Your task to perform on an android device: change notification settings in the gmail app Image 0: 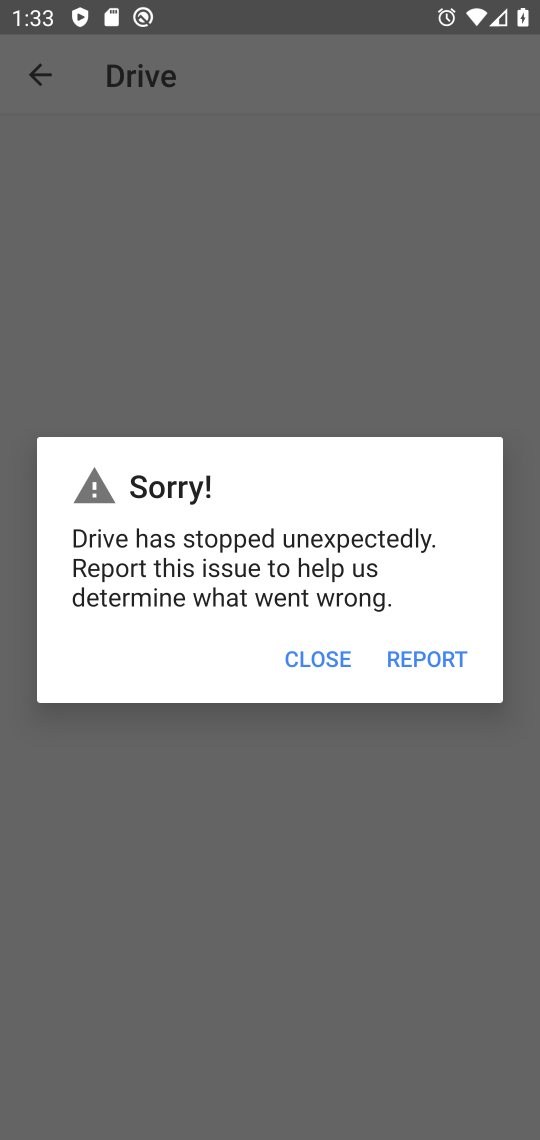
Step 0: drag from (257, 550) to (306, 433)
Your task to perform on an android device: change notification settings in the gmail app Image 1: 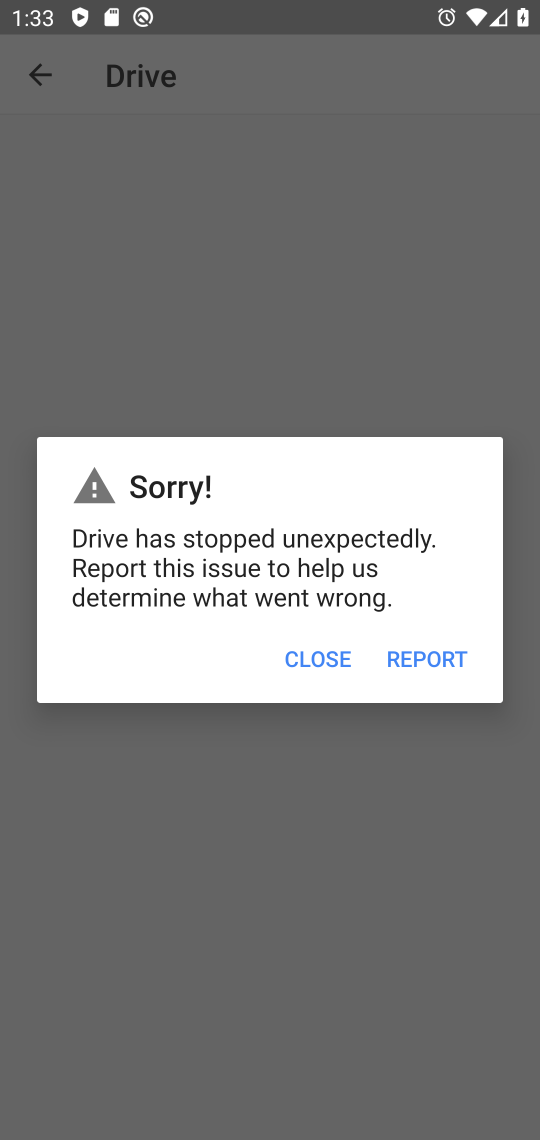
Step 1: press home button
Your task to perform on an android device: change notification settings in the gmail app Image 2: 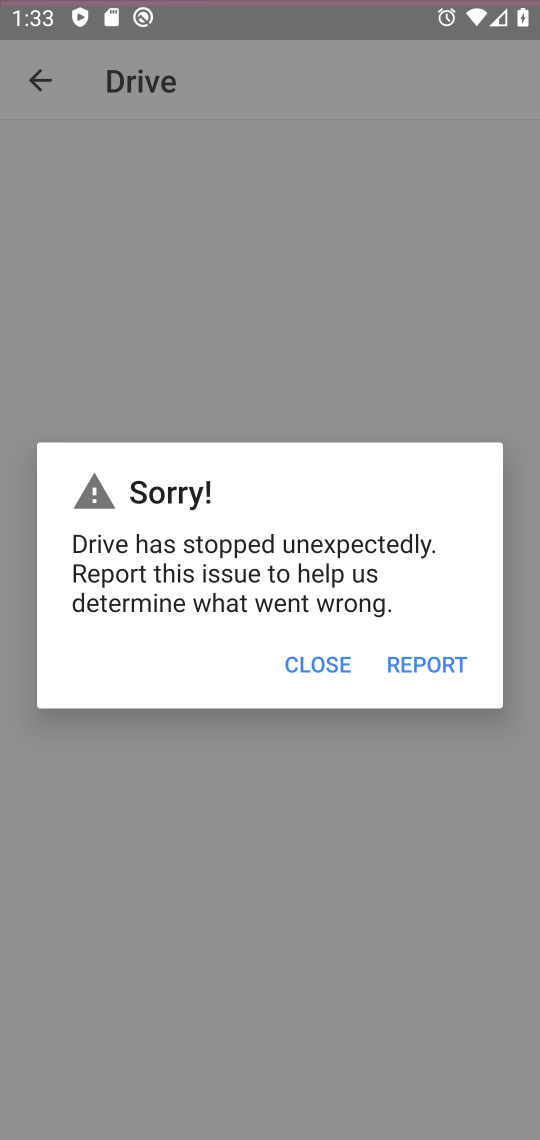
Step 2: drag from (297, 702) to (297, 543)
Your task to perform on an android device: change notification settings in the gmail app Image 3: 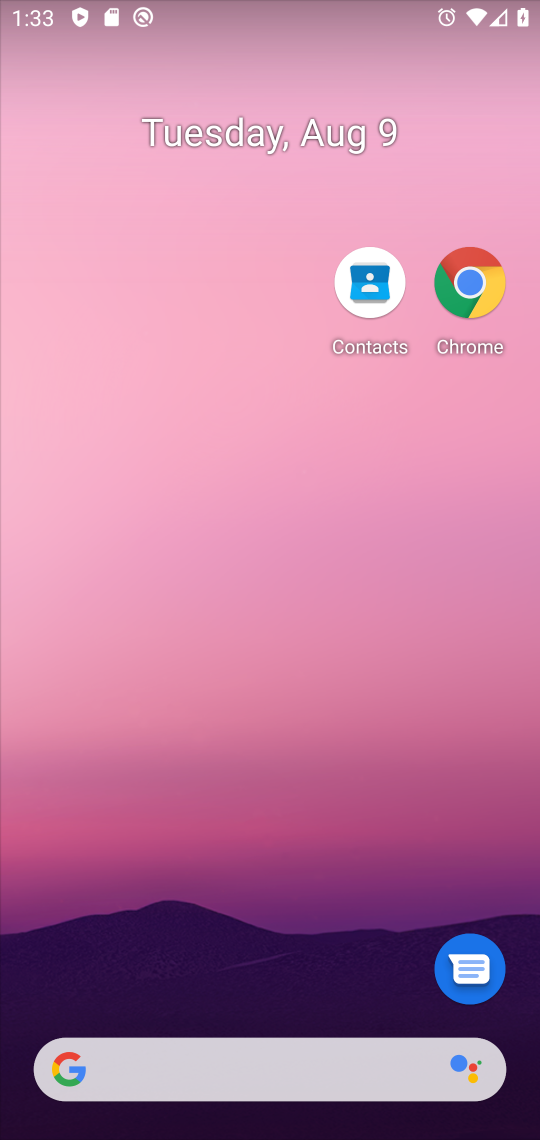
Step 3: drag from (292, 826) to (307, 406)
Your task to perform on an android device: change notification settings in the gmail app Image 4: 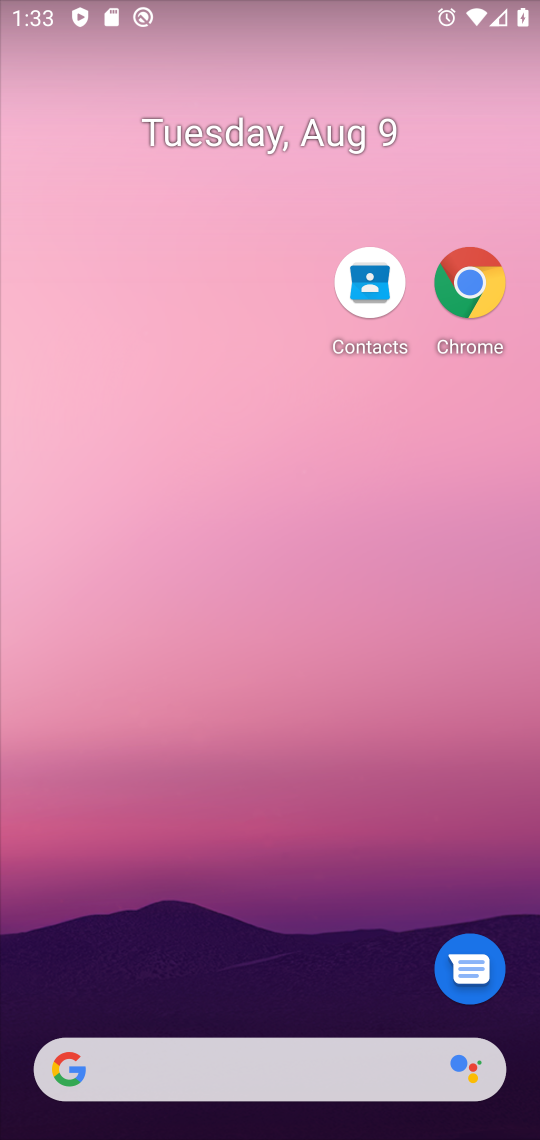
Step 4: drag from (295, 608) to (320, 92)
Your task to perform on an android device: change notification settings in the gmail app Image 5: 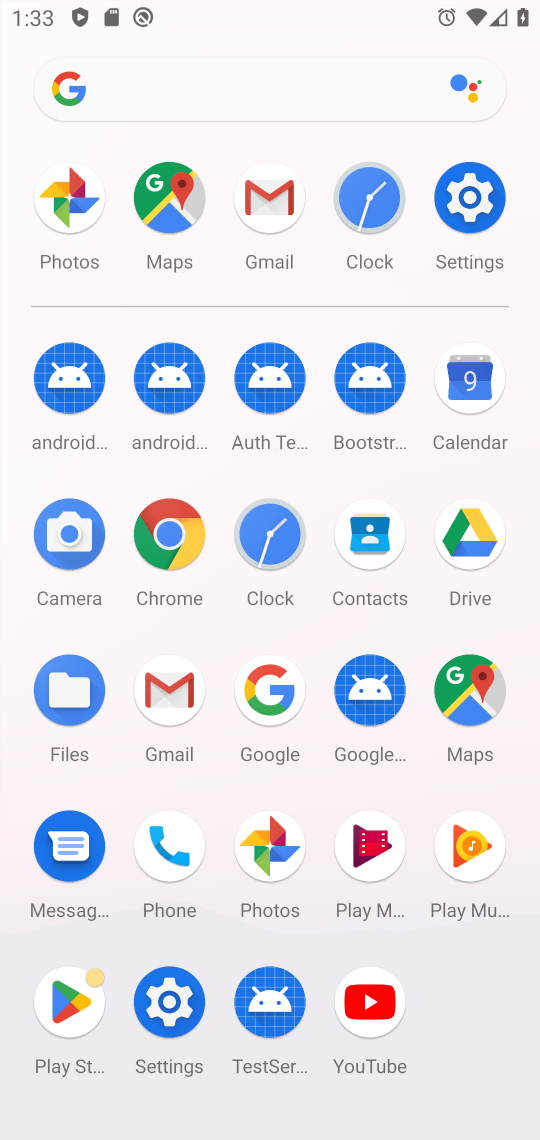
Step 5: click (176, 671)
Your task to perform on an android device: change notification settings in the gmail app Image 6: 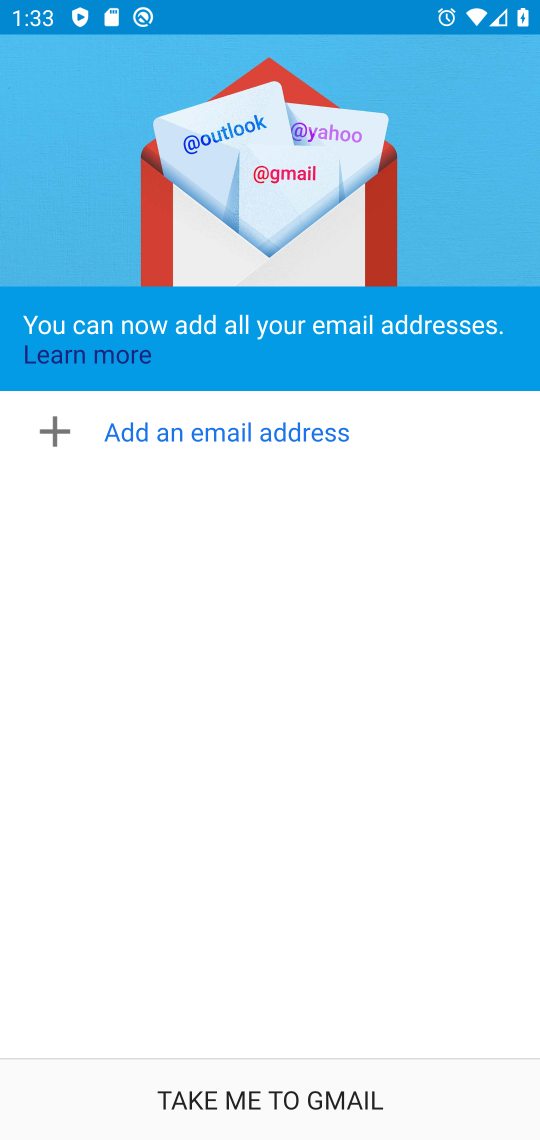
Step 6: click (219, 1076)
Your task to perform on an android device: change notification settings in the gmail app Image 7: 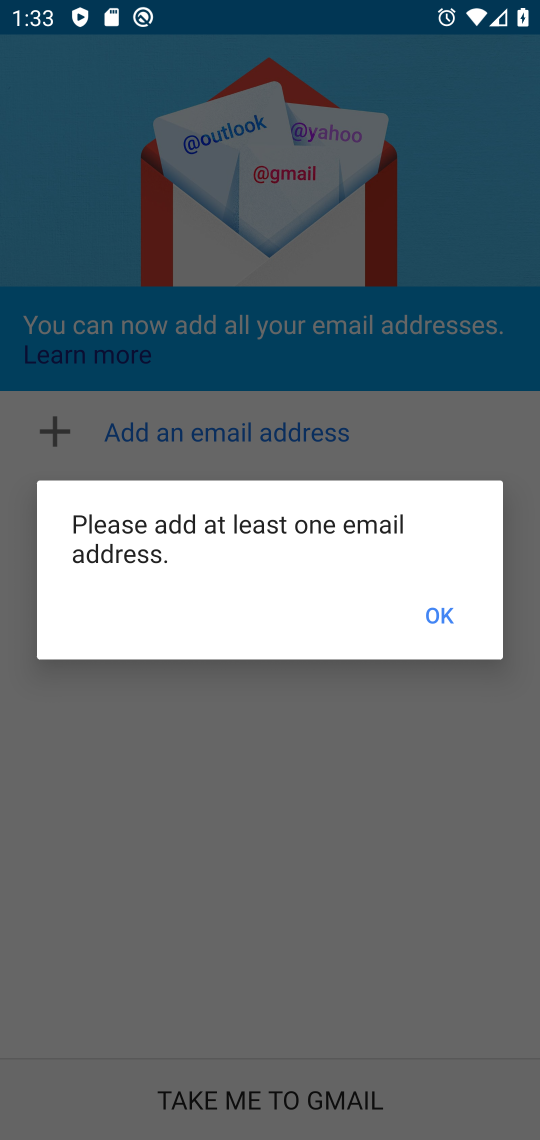
Step 7: click (461, 601)
Your task to perform on an android device: change notification settings in the gmail app Image 8: 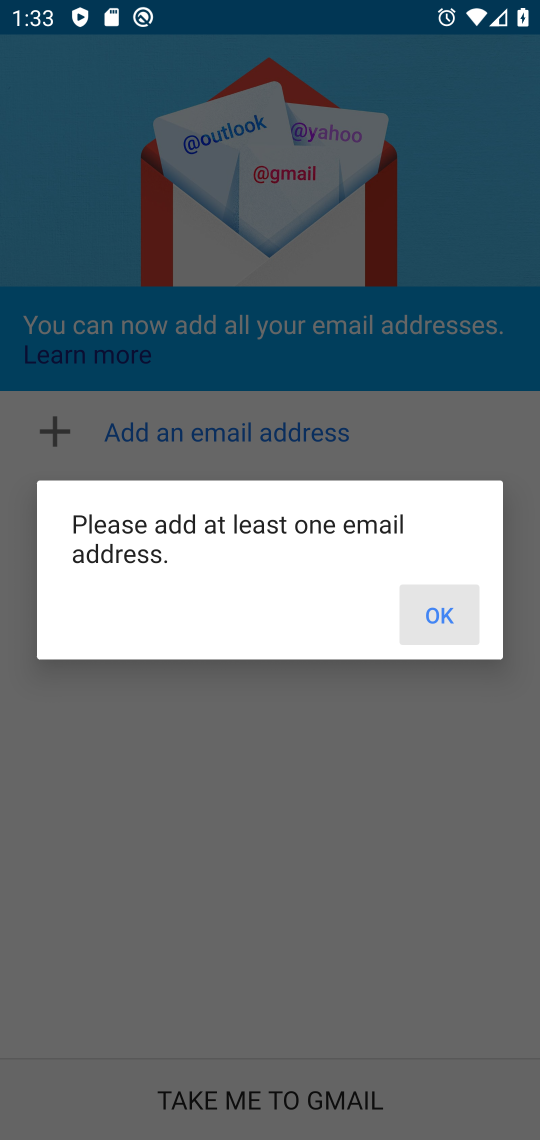
Step 8: click (437, 601)
Your task to perform on an android device: change notification settings in the gmail app Image 9: 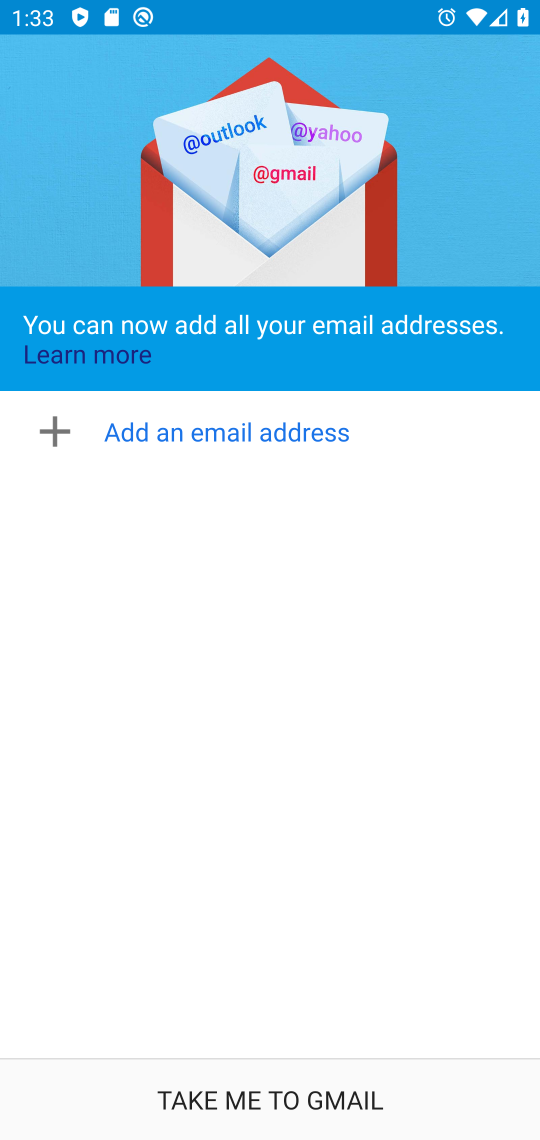
Step 9: click (281, 1090)
Your task to perform on an android device: change notification settings in the gmail app Image 10: 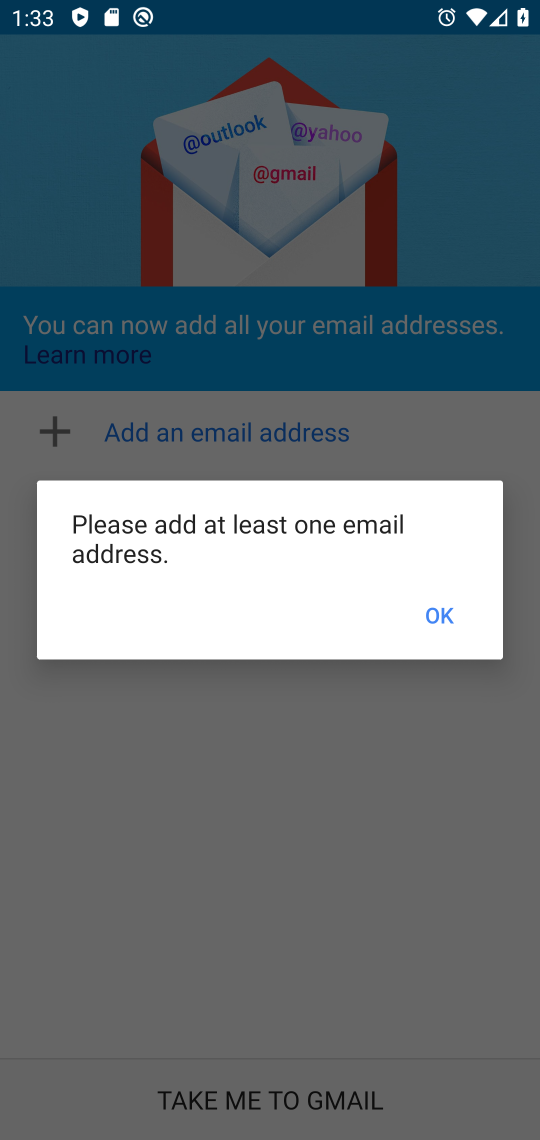
Step 10: click (438, 605)
Your task to perform on an android device: change notification settings in the gmail app Image 11: 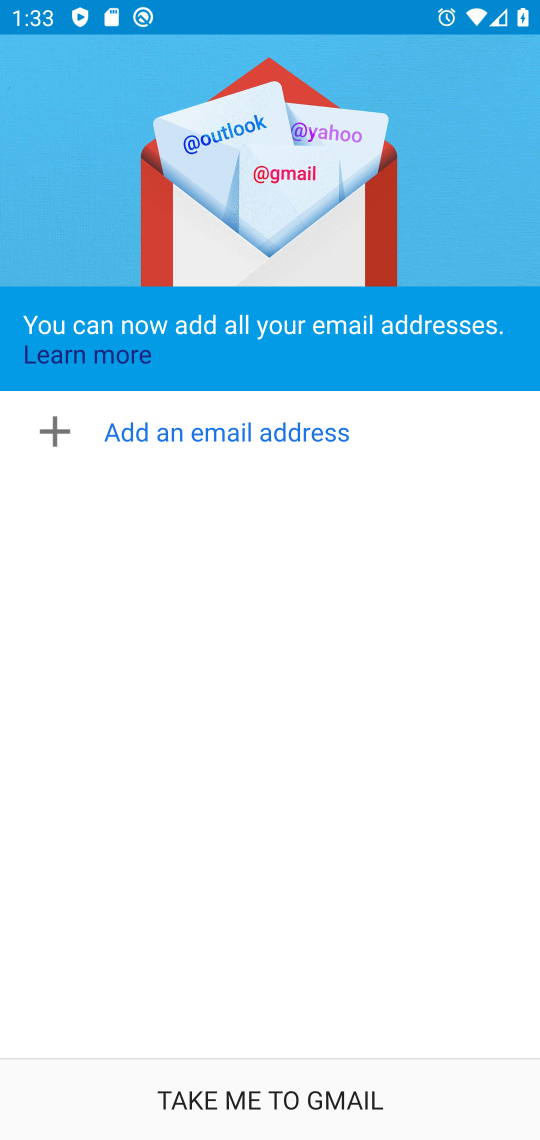
Step 11: task complete